Your task to perform on an android device: Open accessibility settings Image 0: 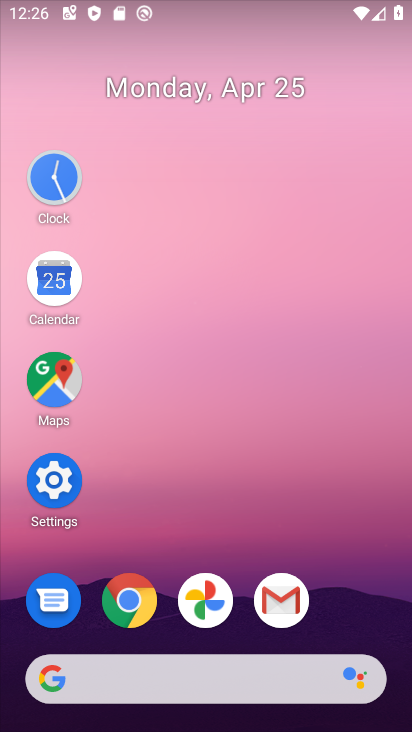
Step 0: click (49, 483)
Your task to perform on an android device: Open accessibility settings Image 1: 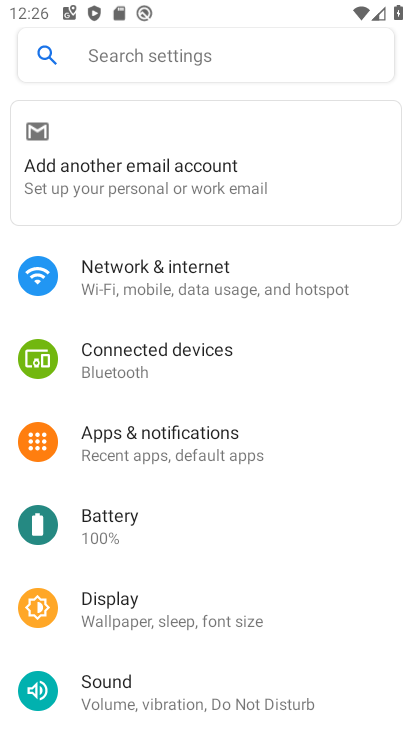
Step 1: drag from (206, 593) to (113, 209)
Your task to perform on an android device: Open accessibility settings Image 2: 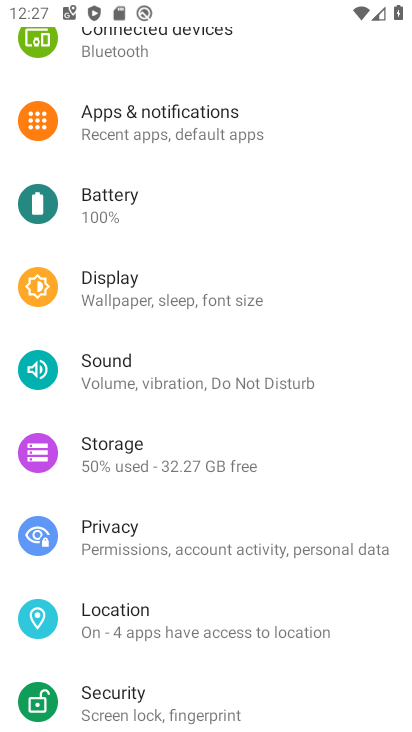
Step 2: drag from (246, 579) to (140, 97)
Your task to perform on an android device: Open accessibility settings Image 3: 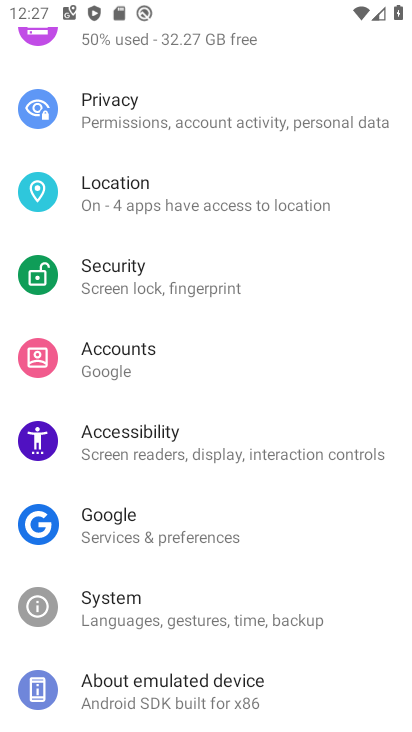
Step 3: click (132, 429)
Your task to perform on an android device: Open accessibility settings Image 4: 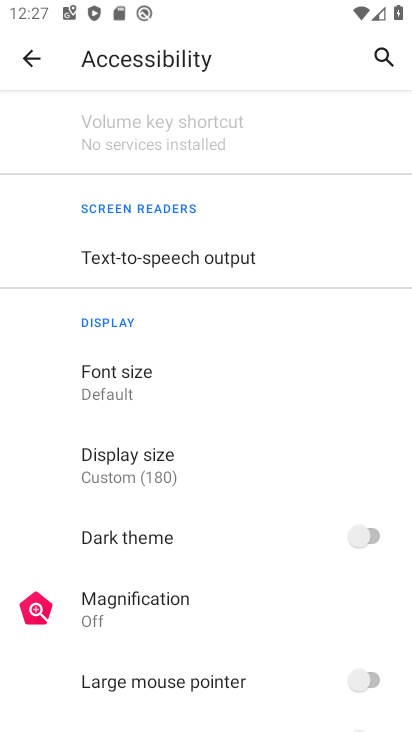
Step 4: task complete